Your task to perform on an android device: turn pop-ups on in chrome Image 0: 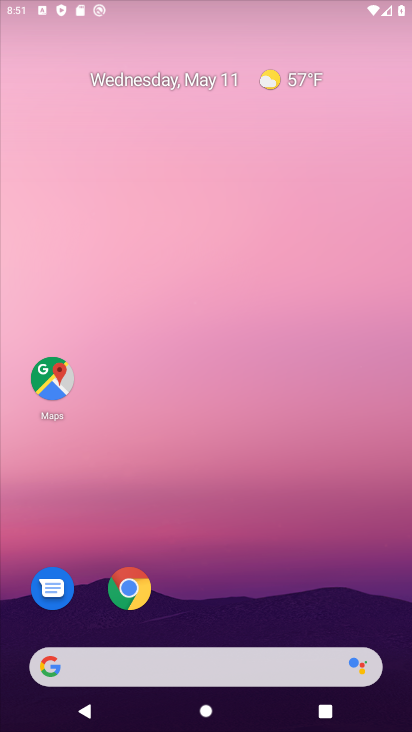
Step 0: drag from (249, 715) to (71, 726)
Your task to perform on an android device: turn pop-ups on in chrome Image 1: 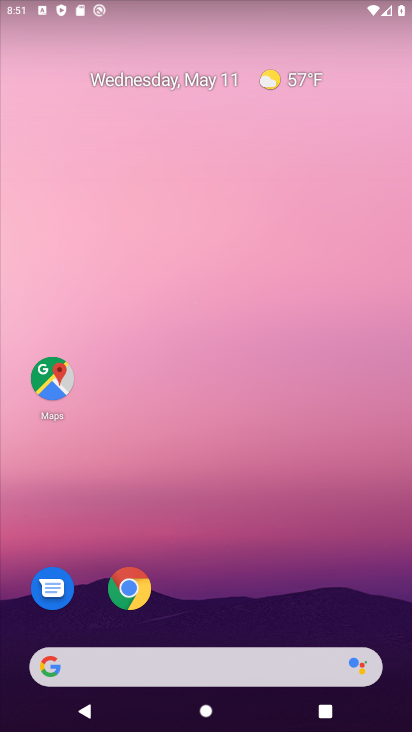
Step 1: click (115, 599)
Your task to perform on an android device: turn pop-ups on in chrome Image 2: 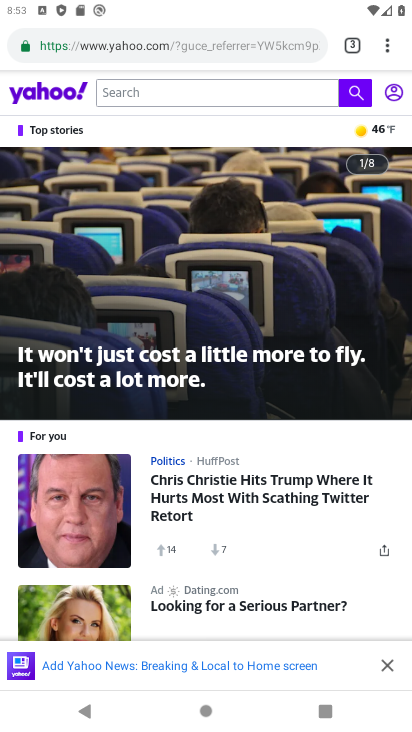
Step 2: click (382, 46)
Your task to perform on an android device: turn pop-ups on in chrome Image 3: 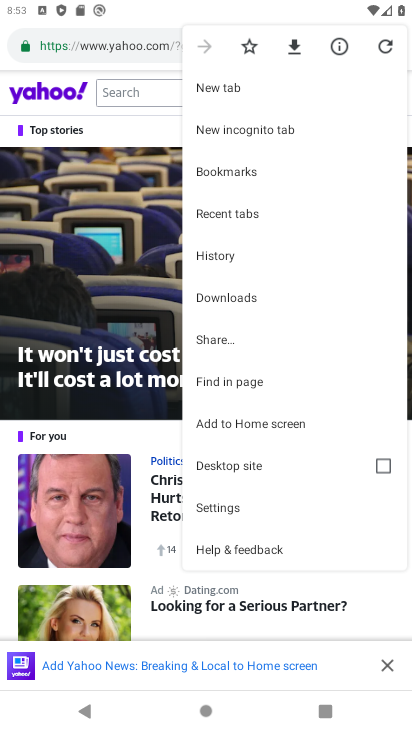
Step 3: click (248, 514)
Your task to perform on an android device: turn pop-ups on in chrome Image 4: 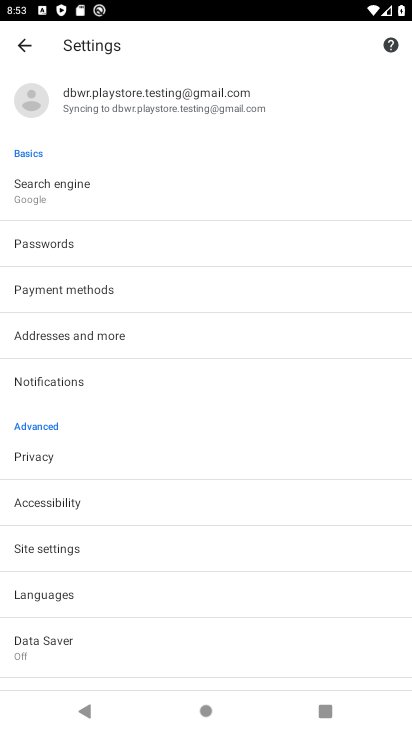
Step 4: click (91, 550)
Your task to perform on an android device: turn pop-ups on in chrome Image 5: 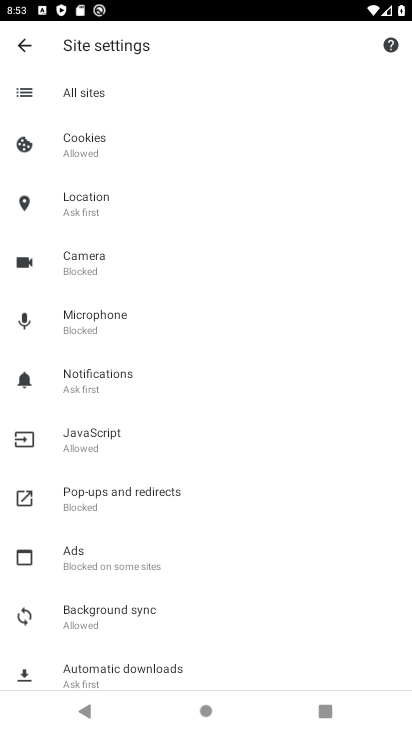
Step 5: click (128, 503)
Your task to perform on an android device: turn pop-ups on in chrome Image 6: 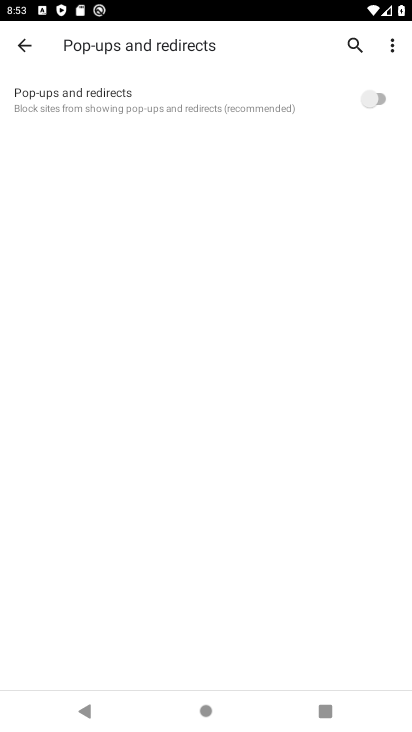
Step 6: click (382, 101)
Your task to perform on an android device: turn pop-ups on in chrome Image 7: 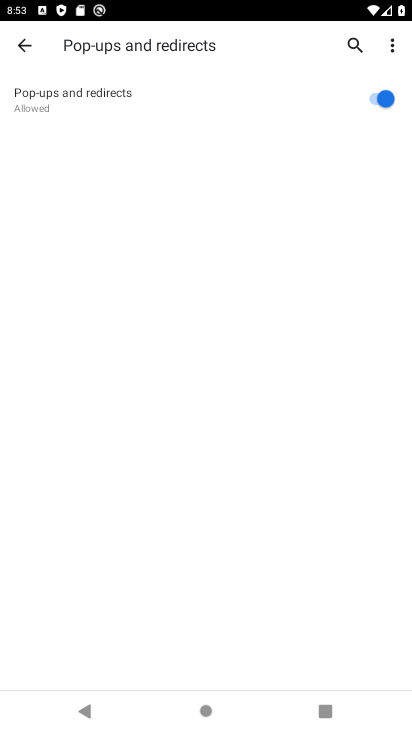
Step 7: task complete